Your task to perform on an android device: Find coffee shops on Maps Image 0: 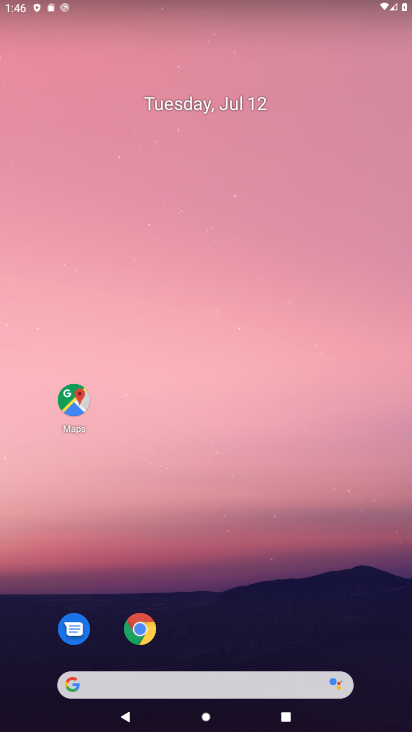
Step 0: click (70, 410)
Your task to perform on an android device: Find coffee shops on Maps Image 1: 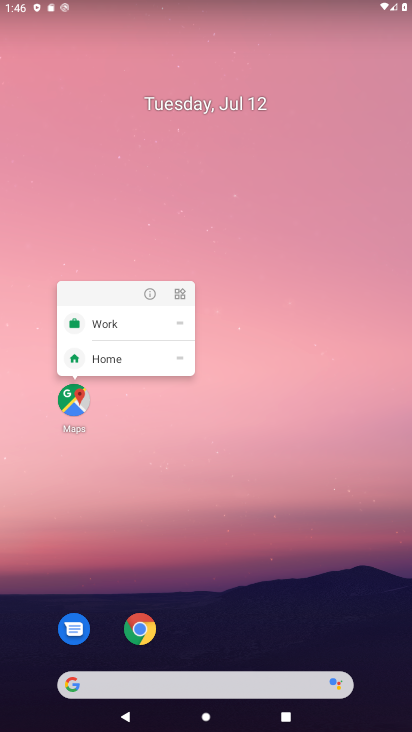
Step 1: click (75, 408)
Your task to perform on an android device: Find coffee shops on Maps Image 2: 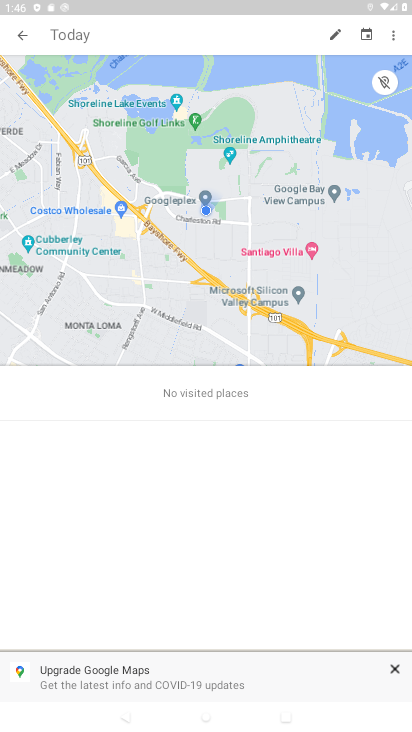
Step 2: click (21, 25)
Your task to perform on an android device: Find coffee shops on Maps Image 3: 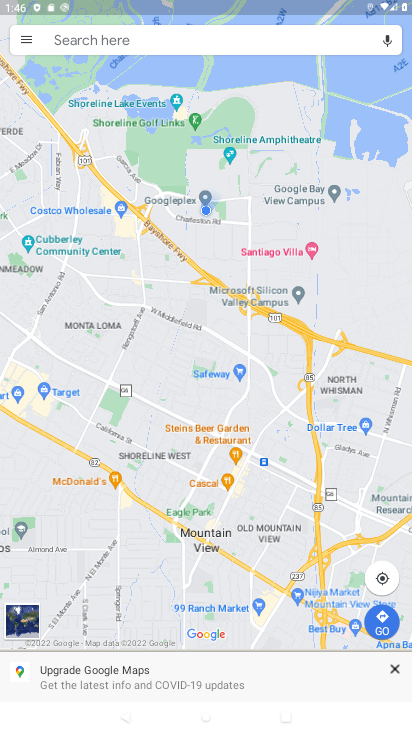
Step 3: click (134, 46)
Your task to perform on an android device: Find coffee shops on Maps Image 4: 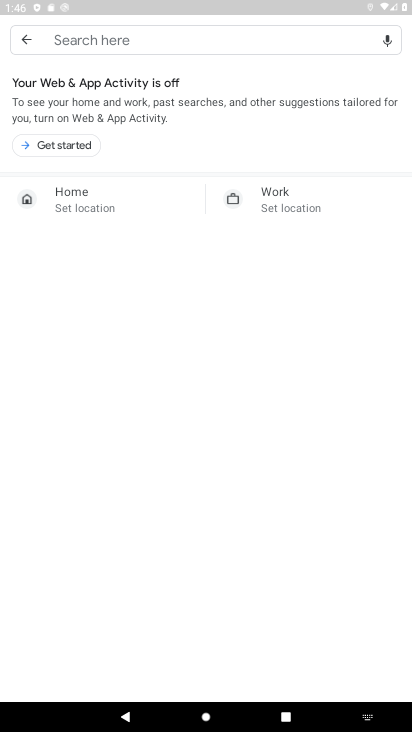
Step 4: type "coffee shops"
Your task to perform on an android device: Find coffee shops on Maps Image 5: 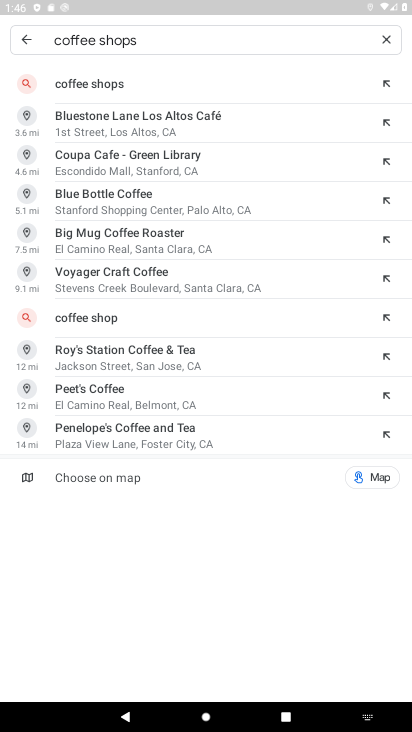
Step 5: click (286, 85)
Your task to perform on an android device: Find coffee shops on Maps Image 6: 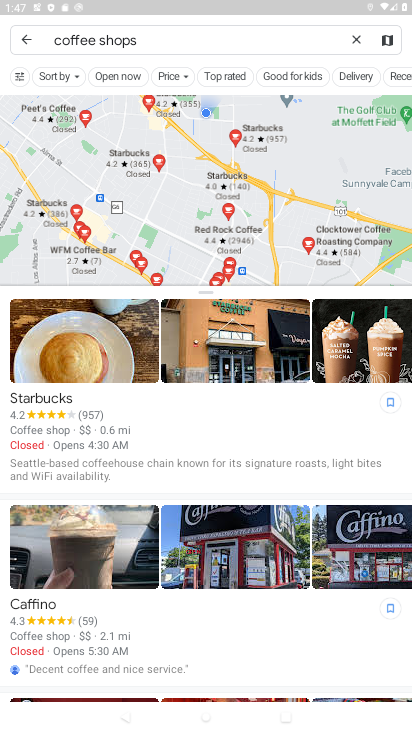
Step 6: task complete